Your task to perform on an android device: uninstall "Facebook" Image 0: 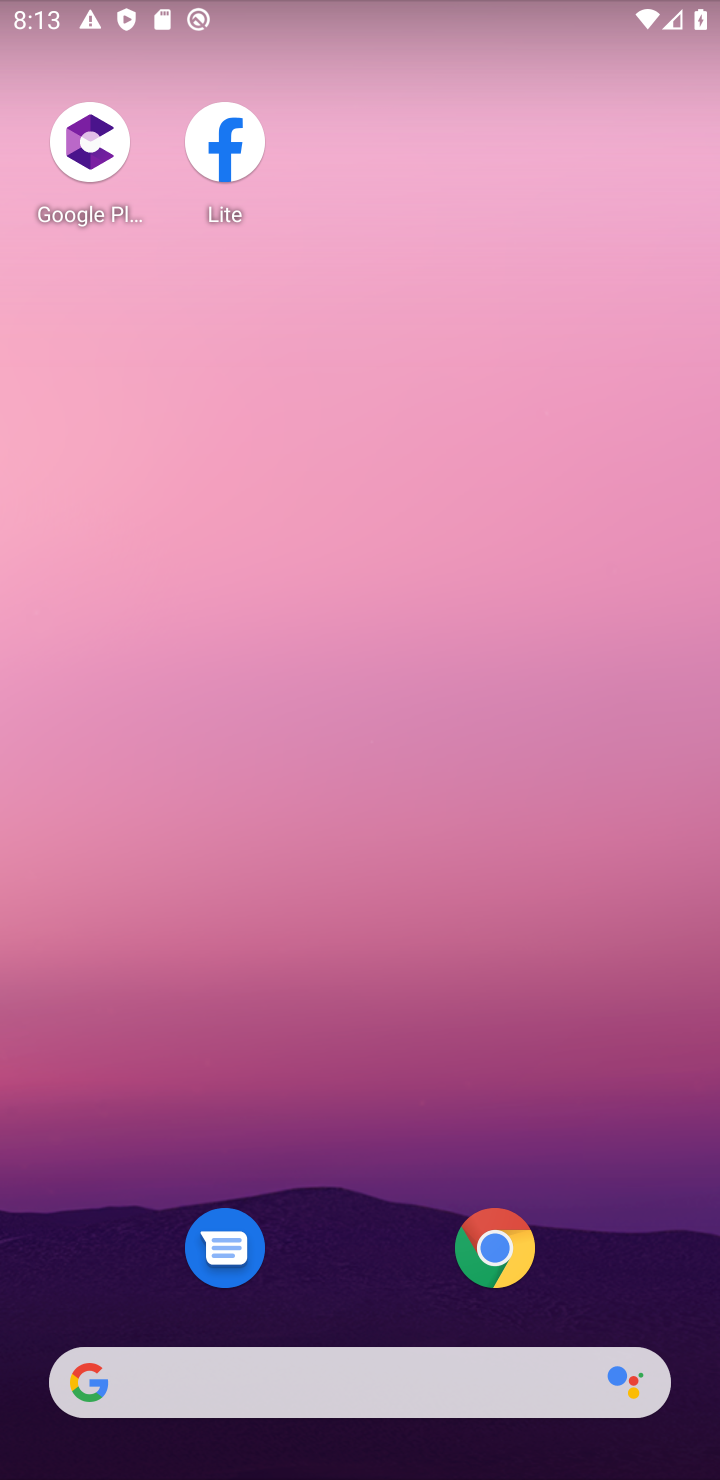
Step 0: drag from (379, 1264) to (415, 125)
Your task to perform on an android device: uninstall "Facebook" Image 1: 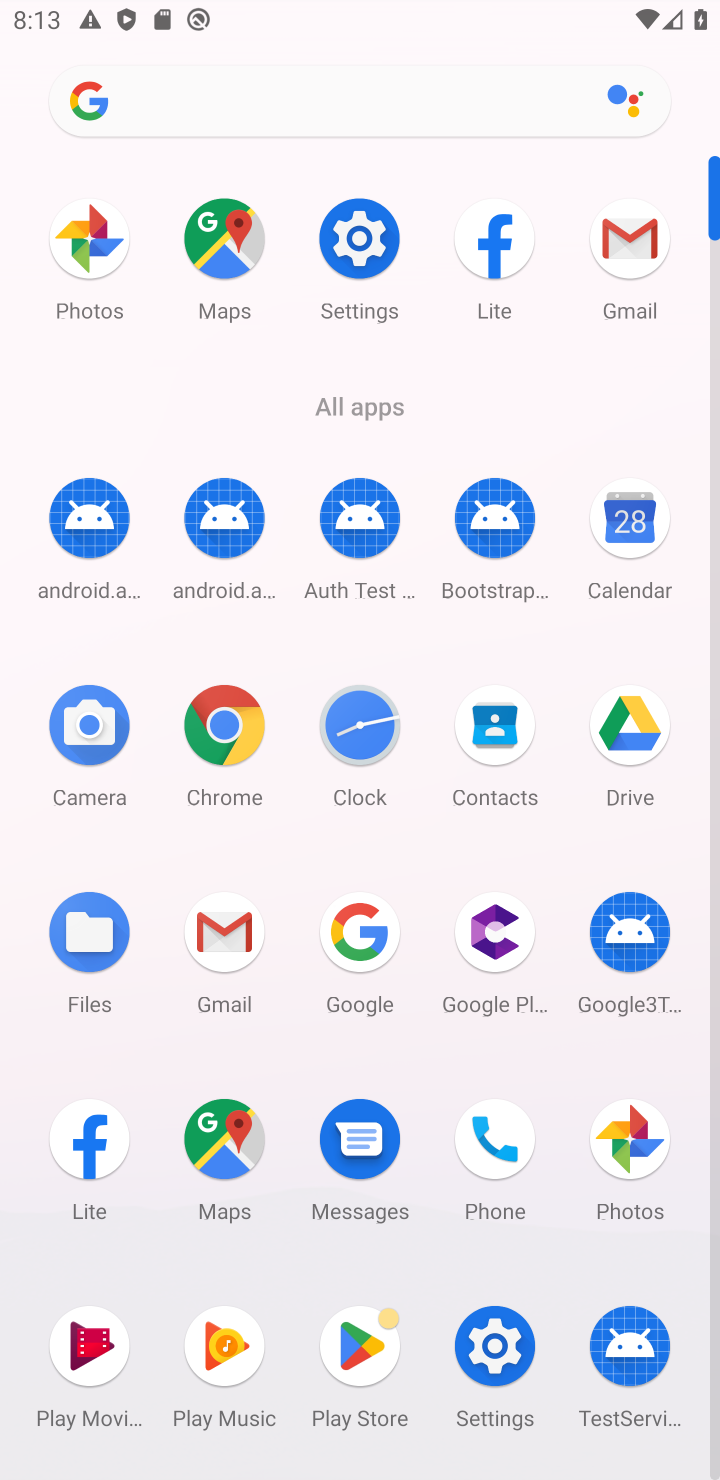
Step 1: click (356, 1340)
Your task to perform on an android device: uninstall "Facebook" Image 2: 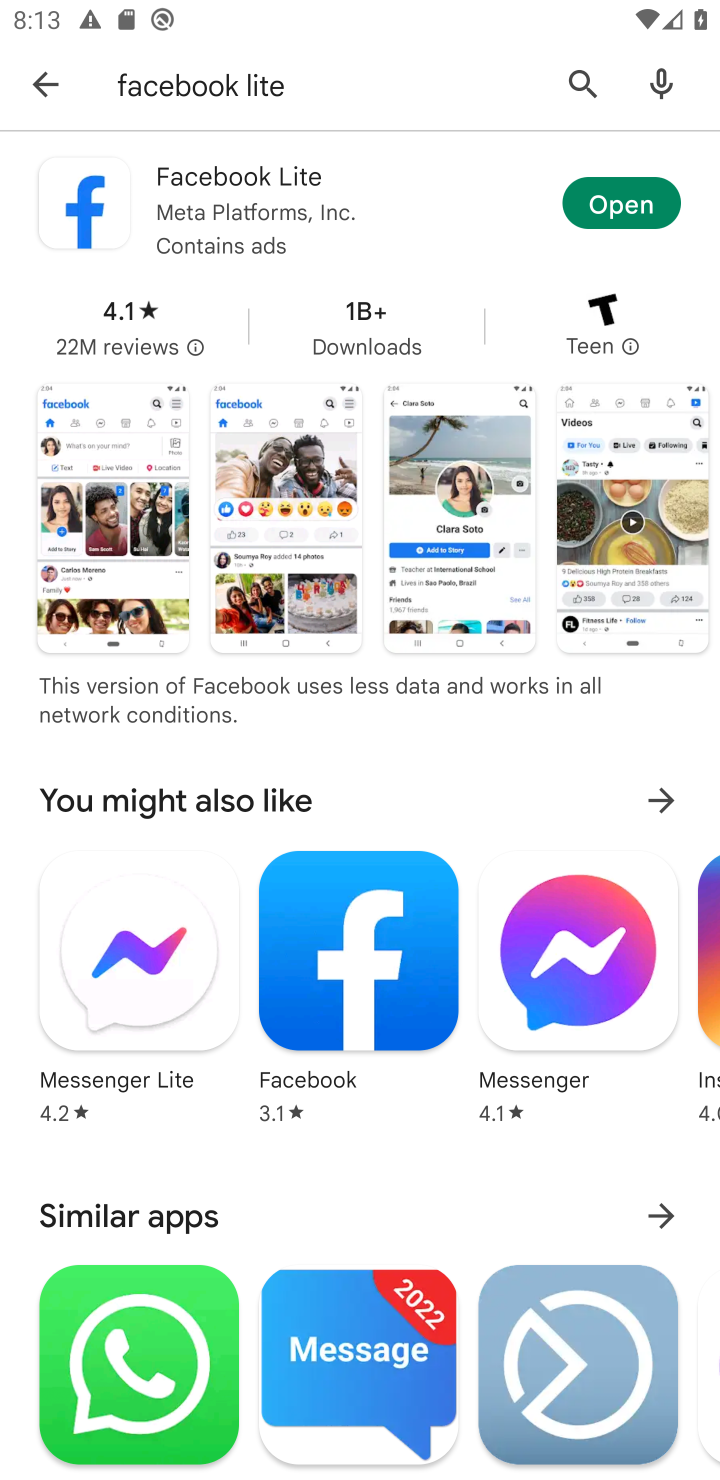
Step 2: click (316, 958)
Your task to perform on an android device: uninstall "Facebook" Image 3: 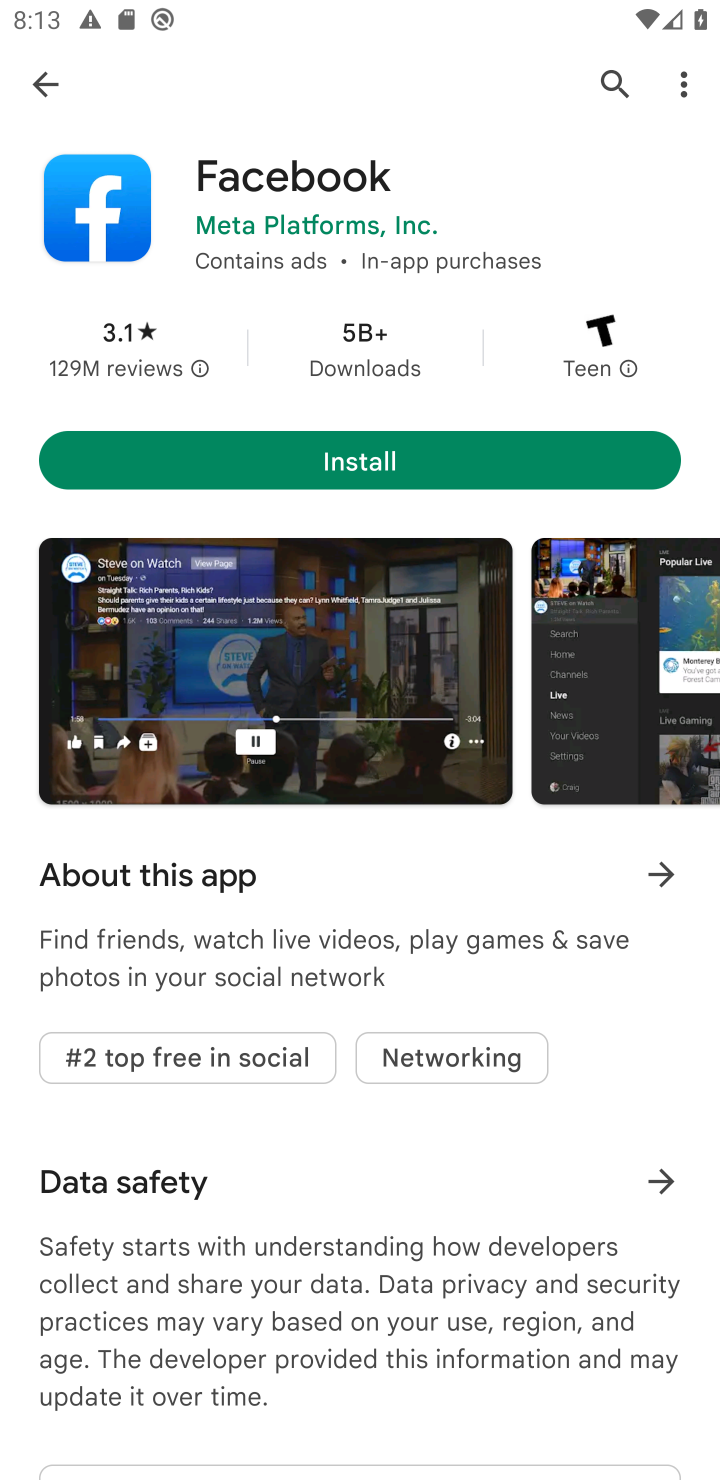
Step 3: click (300, 462)
Your task to perform on an android device: uninstall "Facebook" Image 4: 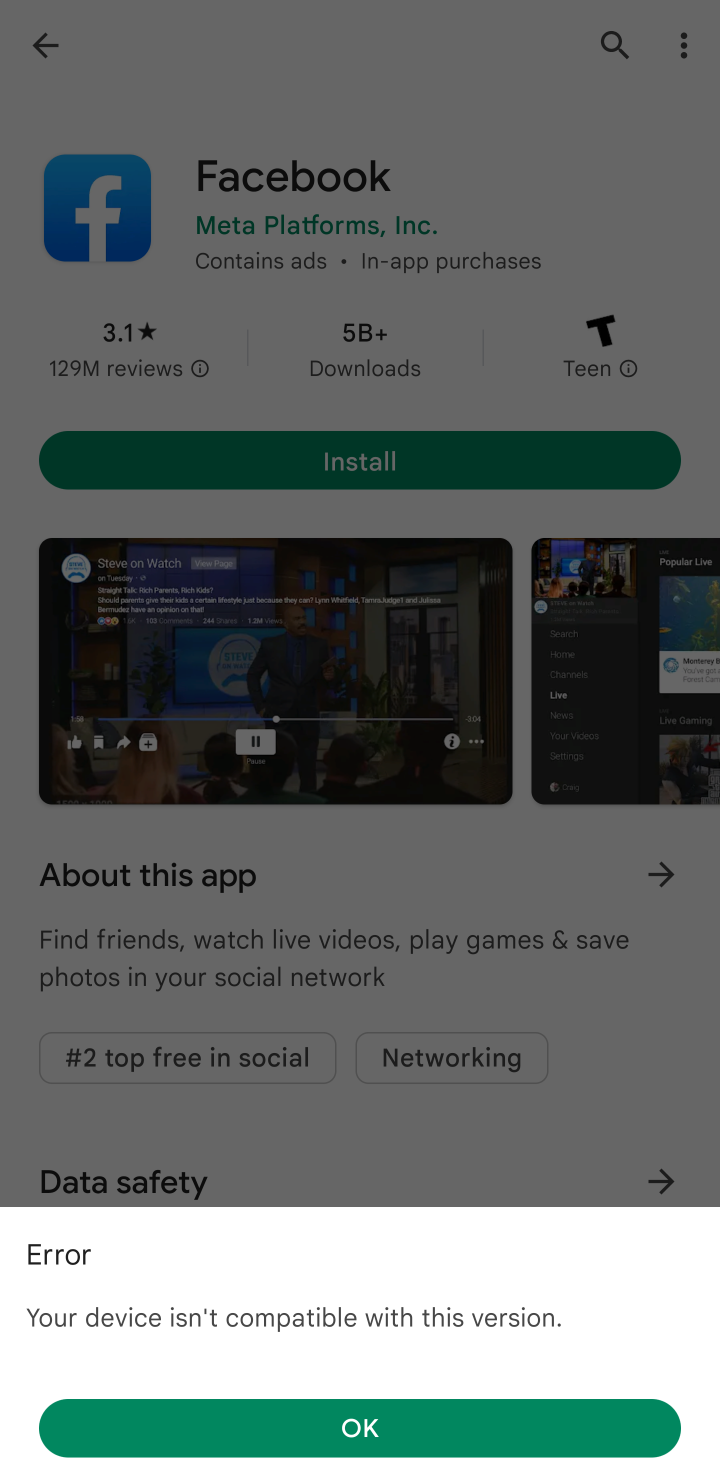
Step 4: click (360, 1438)
Your task to perform on an android device: uninstall "Facebook" Image 5: 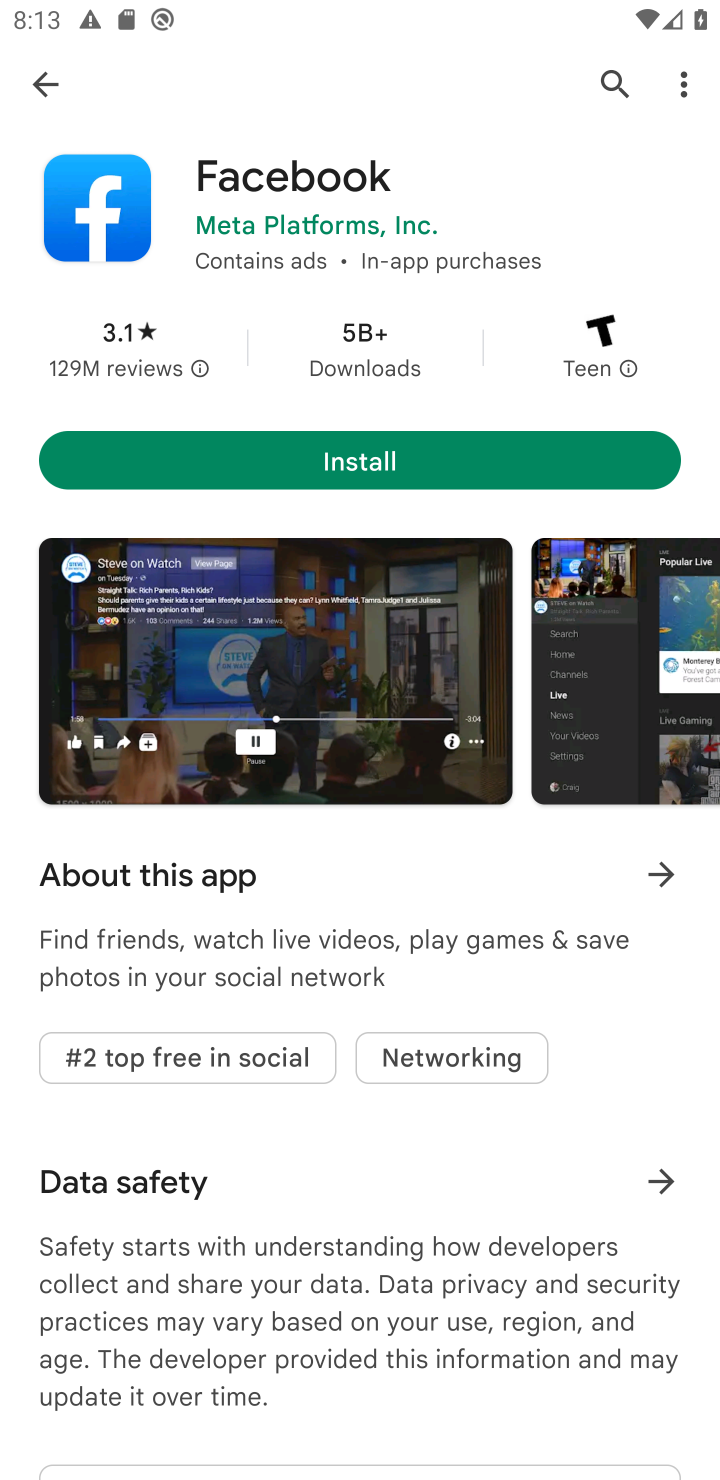
Step 5: press home button
Your task to perform on an android device: uninstall "Facebook" Image 6: 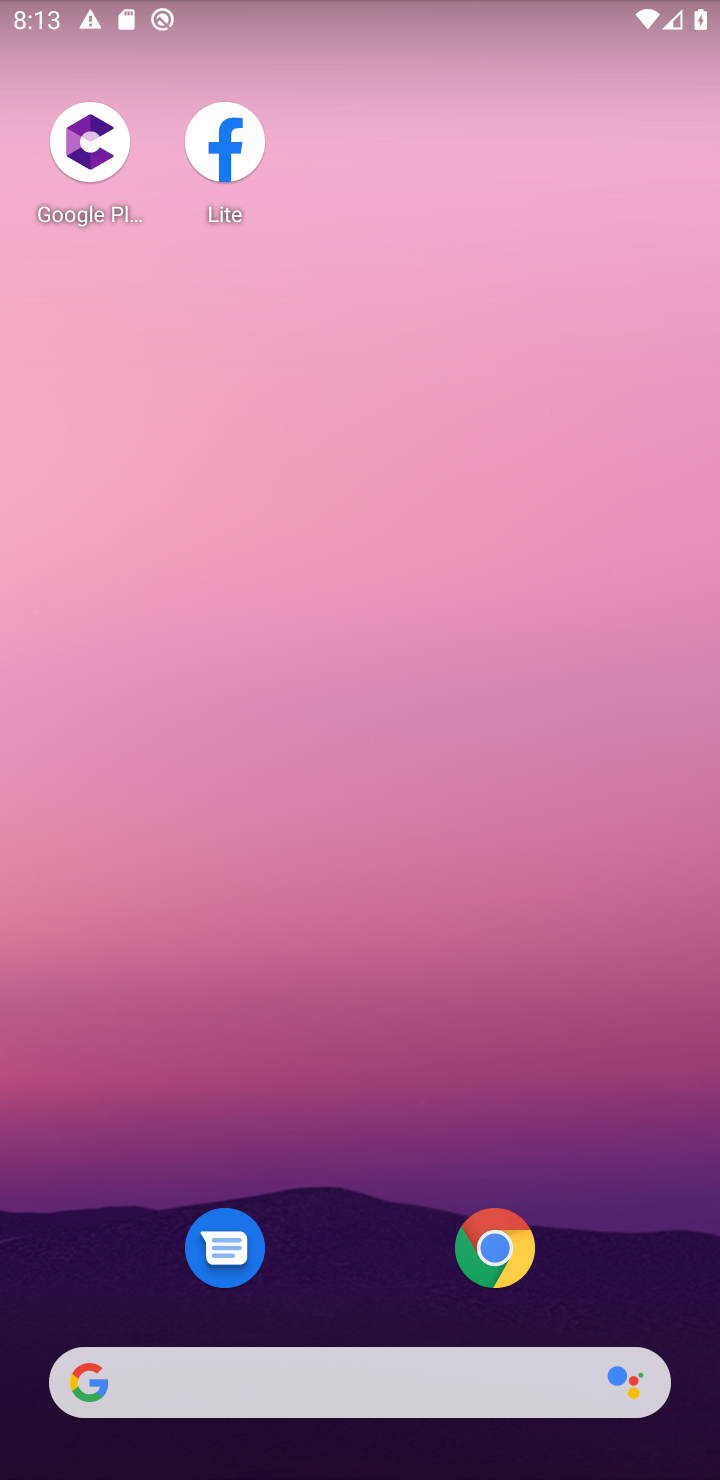
Step 6: drag from (321, 1276) to (615, 12)
Your task to perform on an android device: uninstall "Facebook" Image 7: 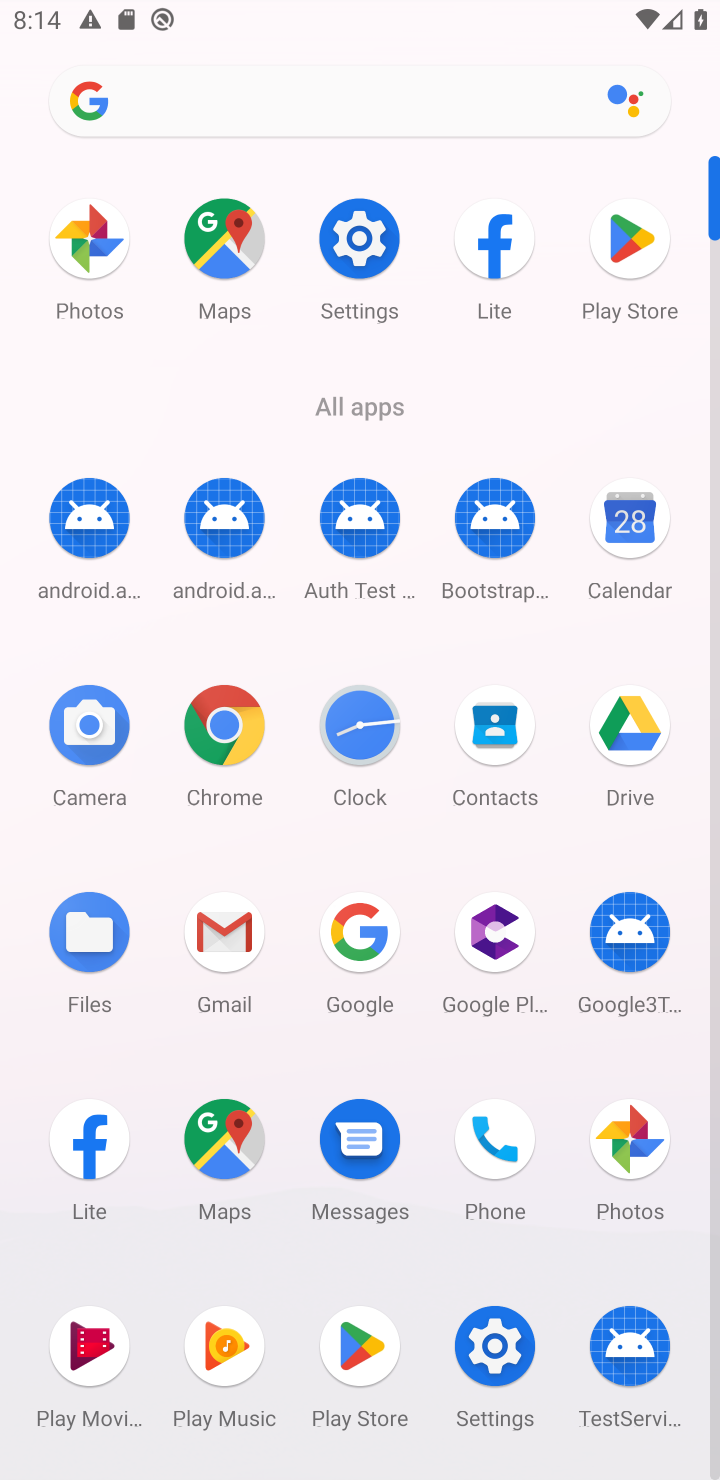
Step 7: click (373, 232)
Your task to perform on an android device: uninstall "Facebook" Image 8: 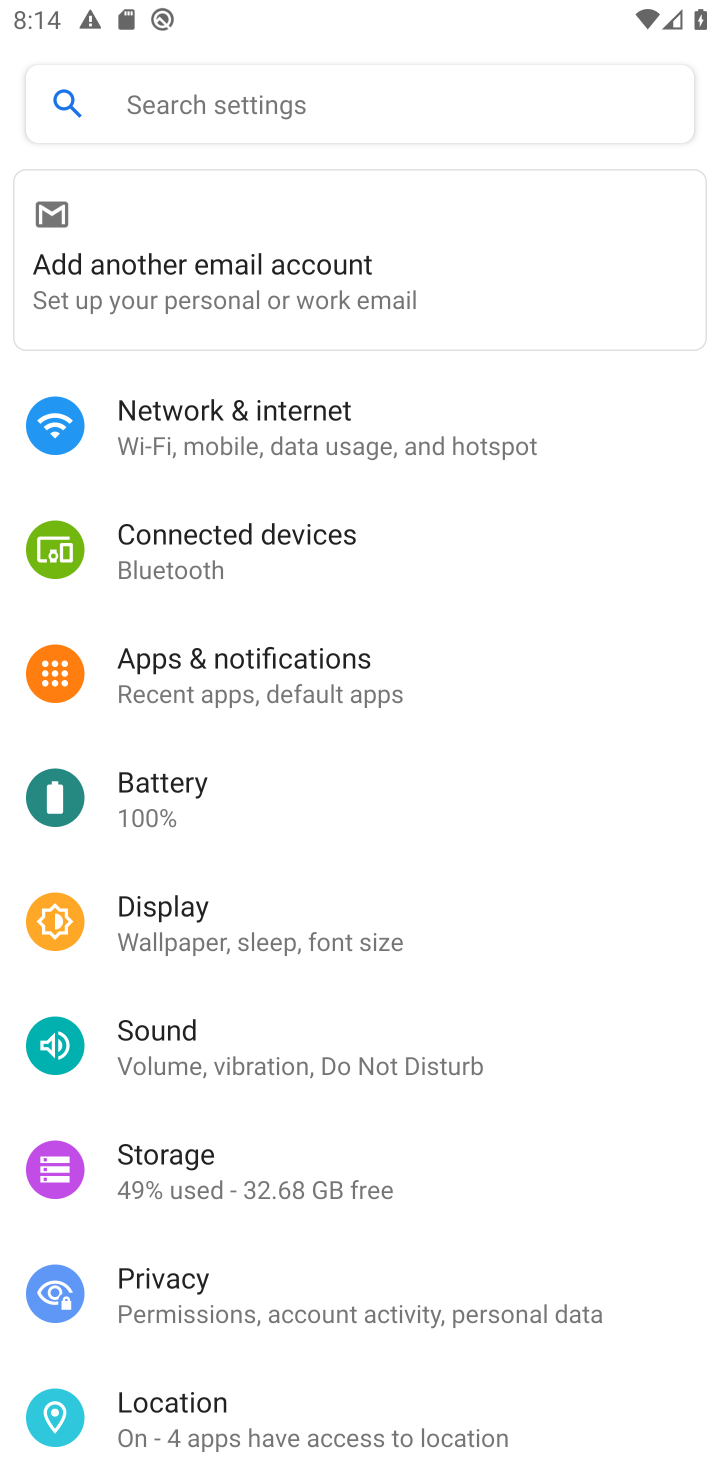
Step 8: click (380, 503)
Your task to perform on an android device: uninstall "Facebook" Image 9: 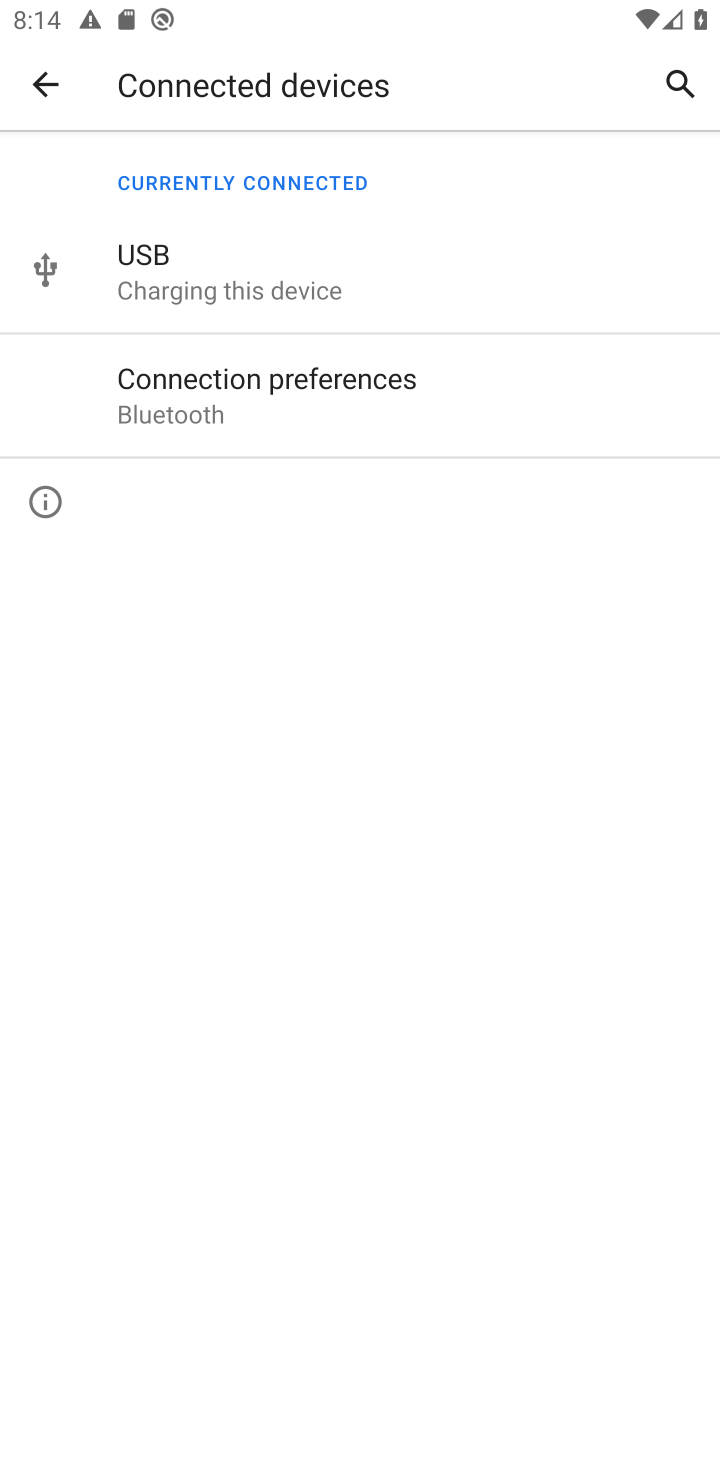
Step 9: press back button
Your task to perform on an android device: uninstall "Facebook" Image 10: 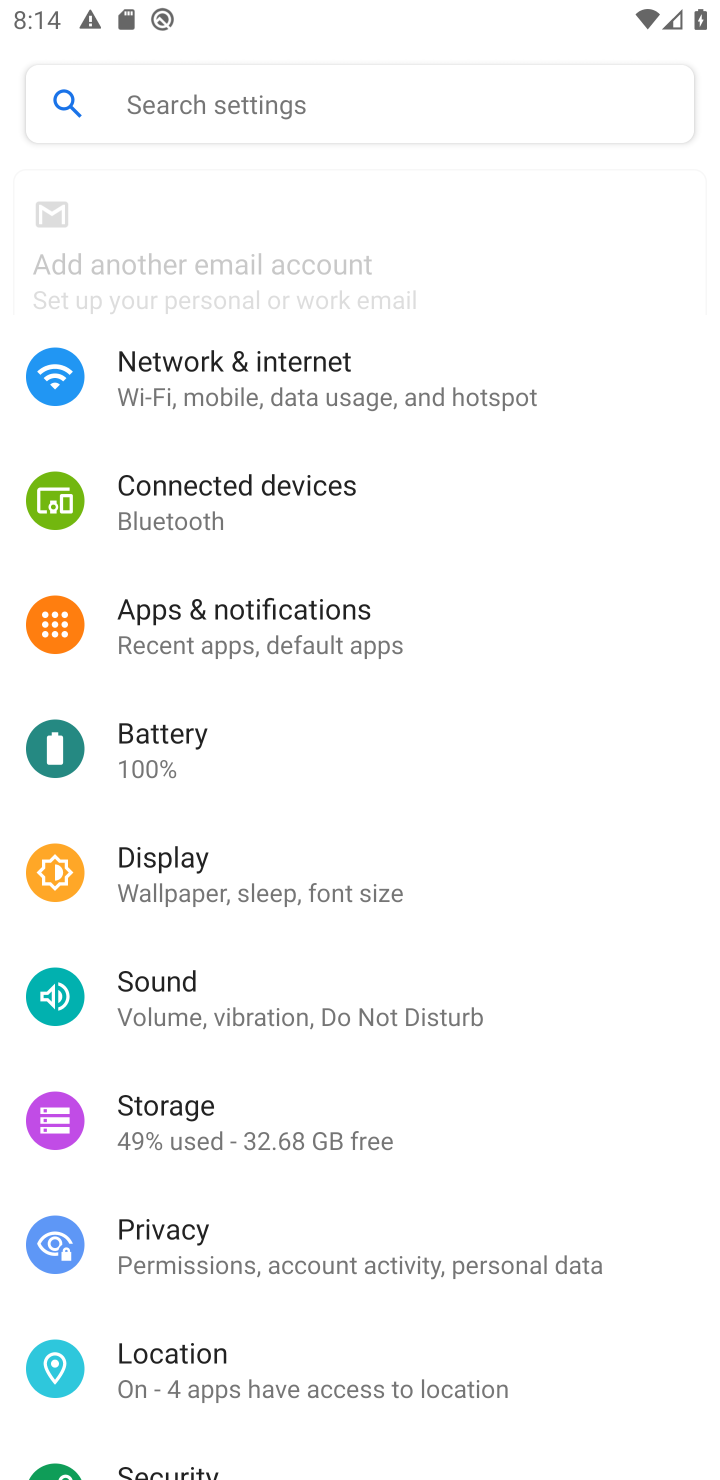
Step 10: click (371, 681)
Your task to perform on an android device: uninstall "Facebook" Image 11: 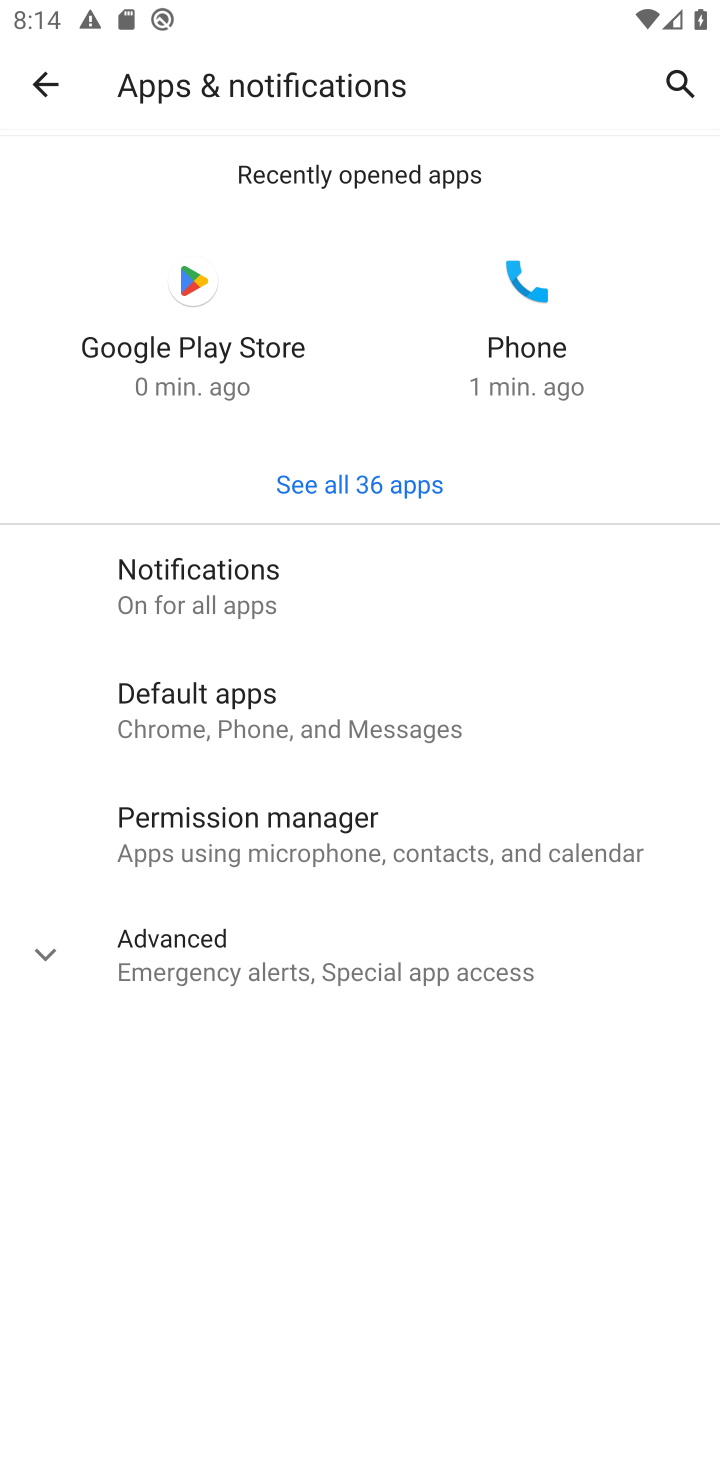
Step 11: click (326, 497)
Your task to perform on an android device: uninstall "Facebook" Image 12: 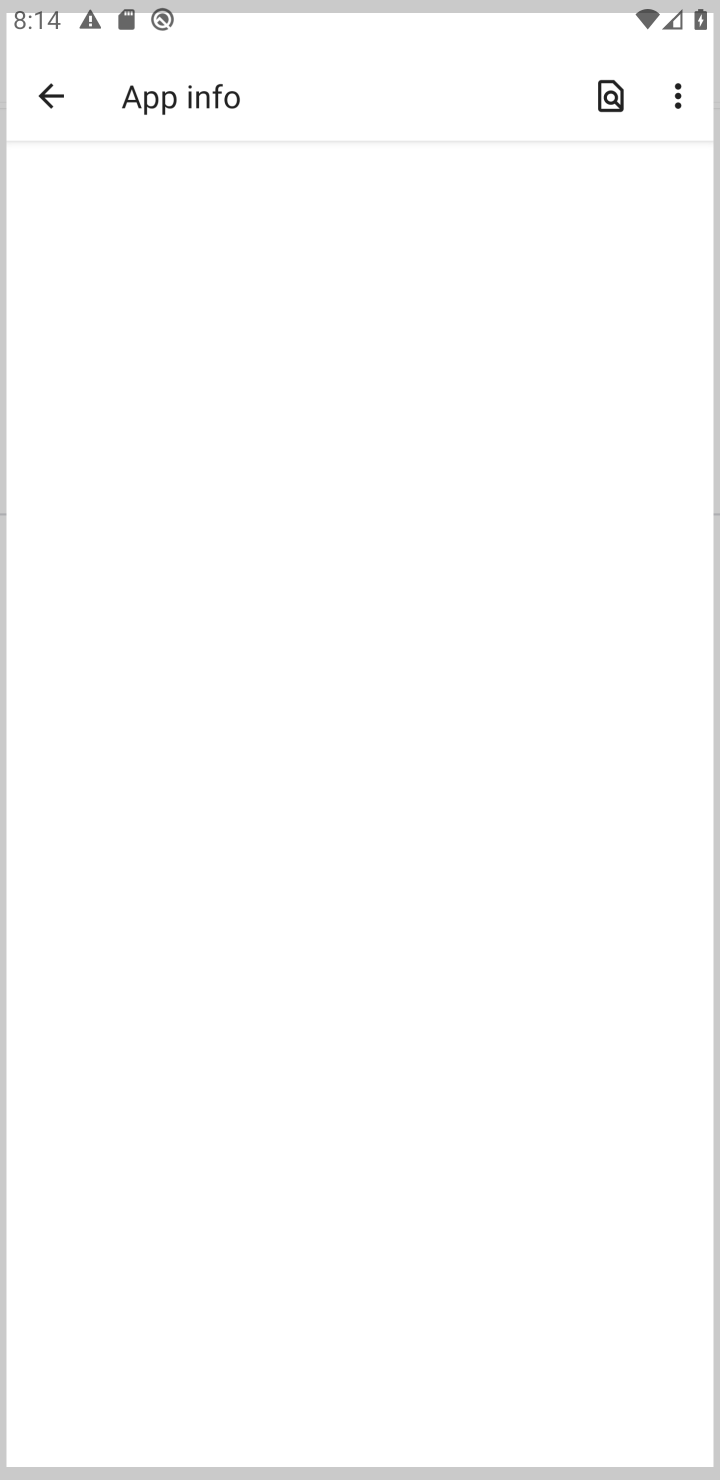
Step 12: click (326, 497)
Your task to perform on an android device: uninstall "Facebook" Image 13: 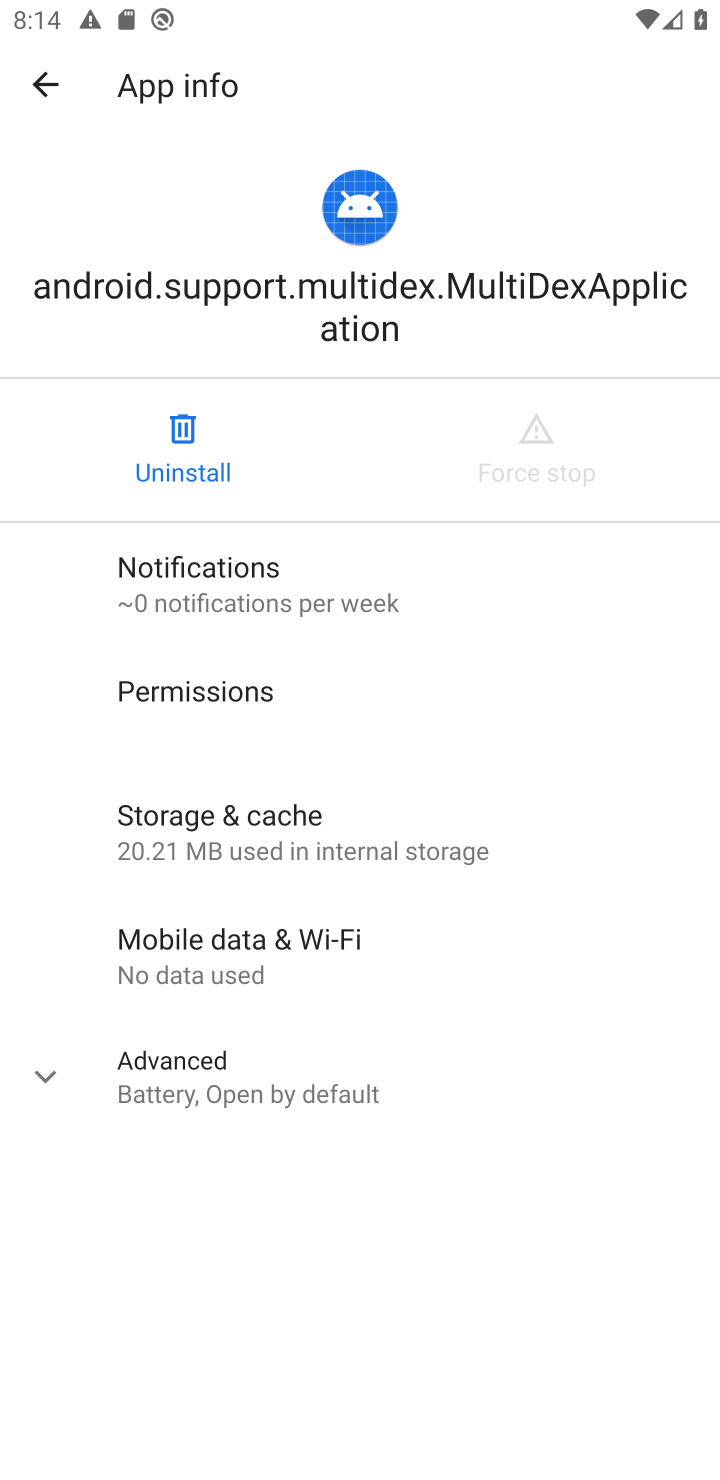
Step 13: drag from (495, 1419) to (696, 383)
Your task to perform on an android device: uninstall "Facebook" Image 14: 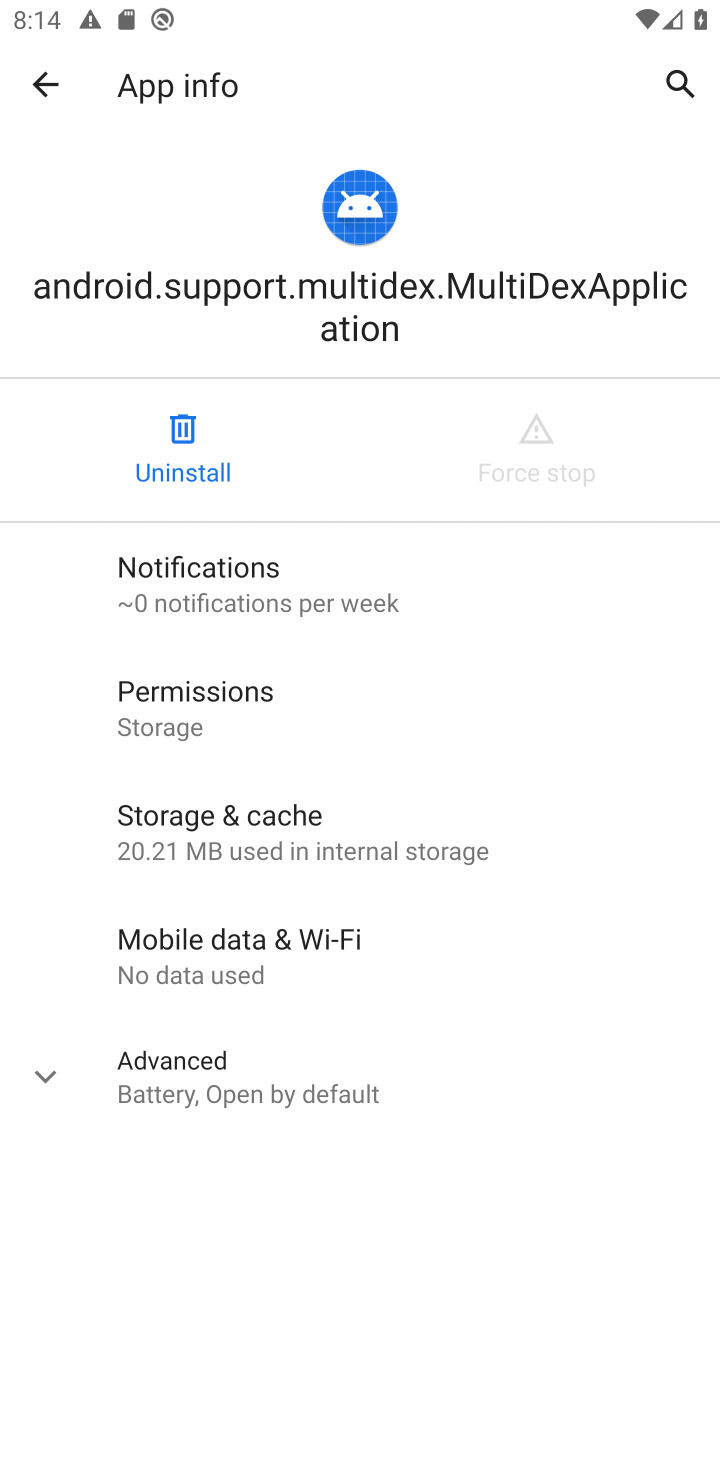
Step 14: click (50, 82)
Your task to perform on an android device: uninstall "Facebook" Image 15: 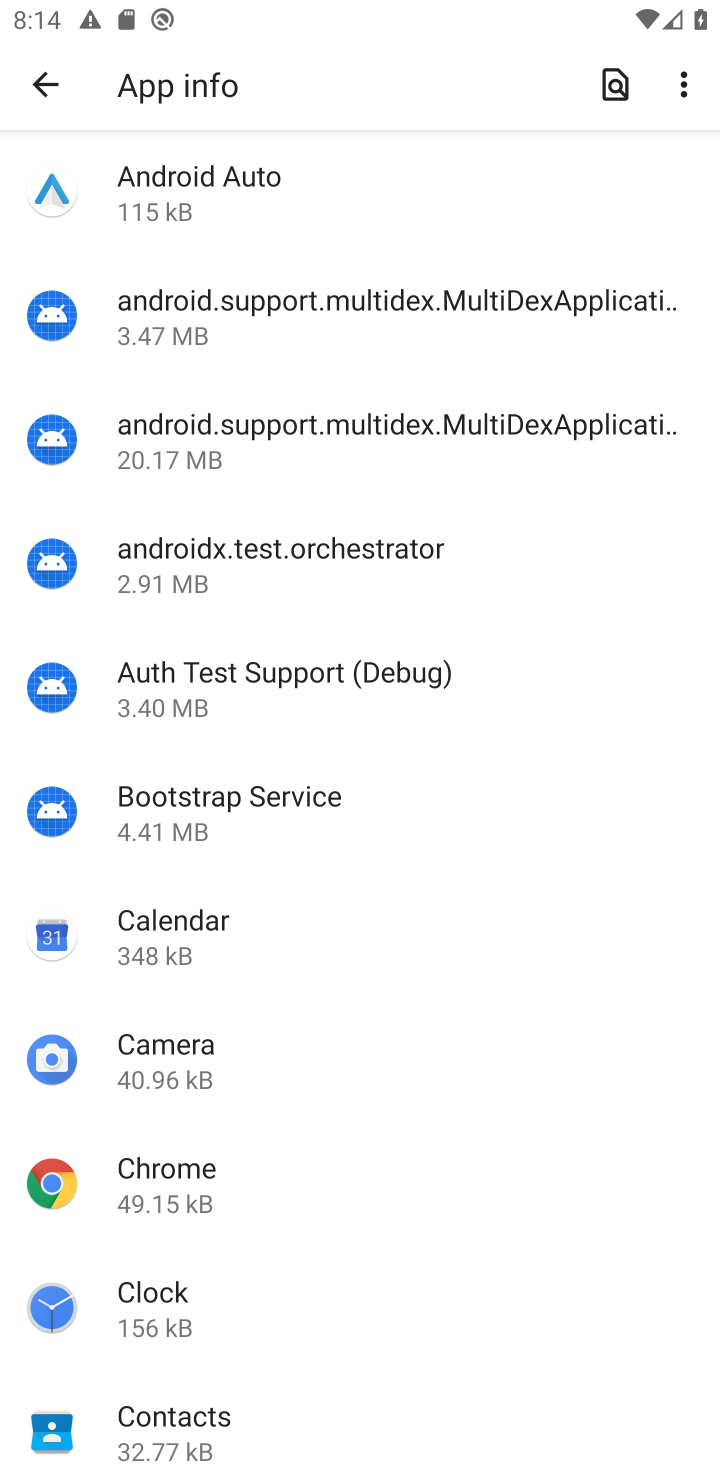
Step 15: task complete